Your task to perform on an android device: open the mobile data screen to see how much data has been used Image 0: 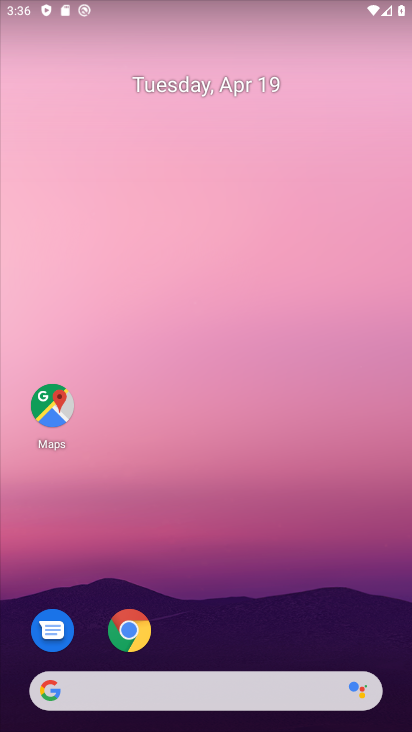
Step 0: drag from (337, 607) to (315, 118)
Your task to perform on an android device: open the mobile data screen to see how much data has been used Image 1: 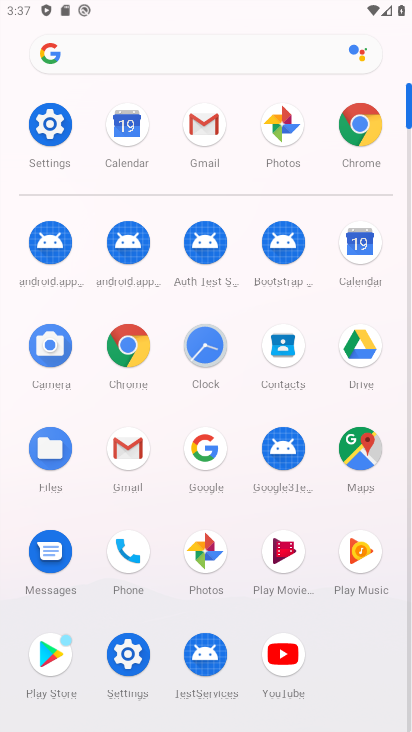
Step 1: click (42, 128)
Your task to perform on an android device: open the mobile data screen to see how much data has been used Image 2: 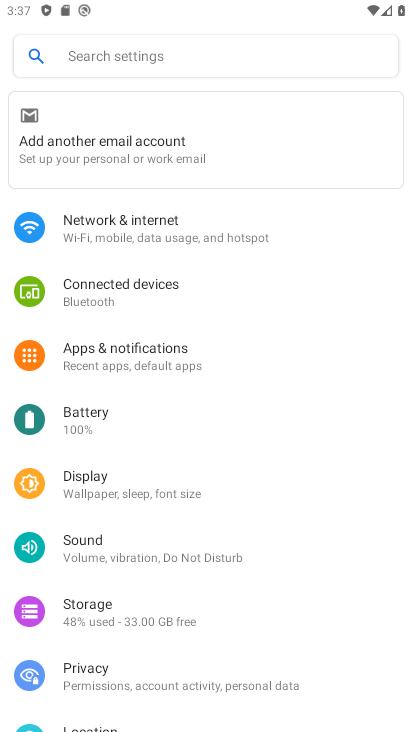
Step 2: click (105, 222)
Your task to perform on an android device: open the mobile data screen to see how much data has been used Image 3: 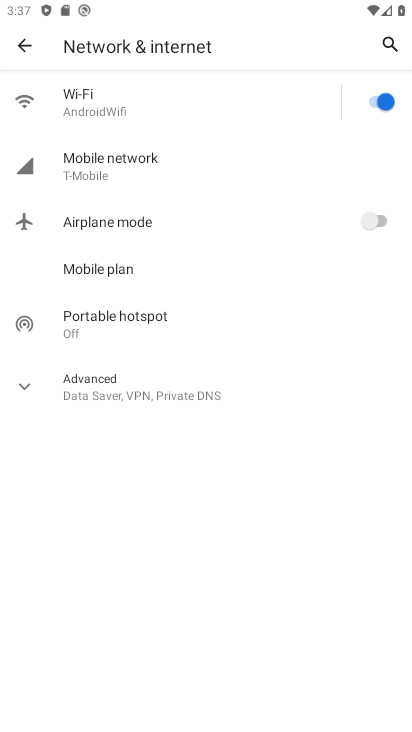
Step 3: click (93, 169)
Your task to perform on an android device: open the mobile data screen to see how much data has been used Image 4: 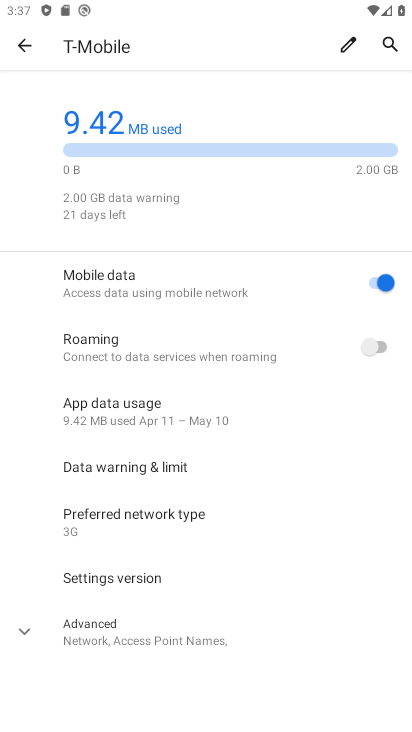
Step 4: task complete